Your task to perform on an android device: check the backup settings in the google photos Image 0: 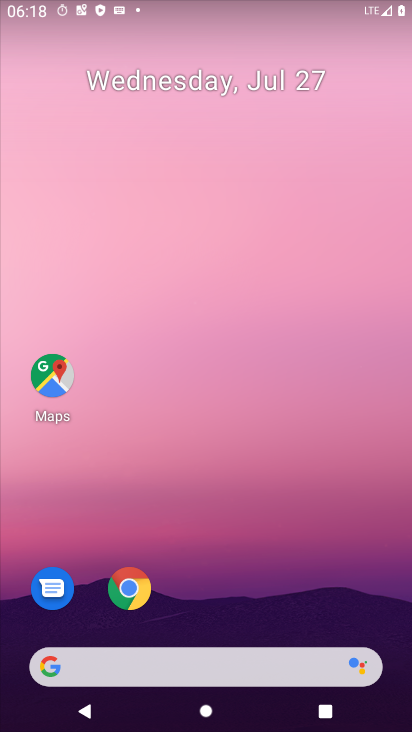
Step 0: drag from (156, 658) to (243, 56)
Your task to perform on an android device: check the backup settings in the google photos Image 1: 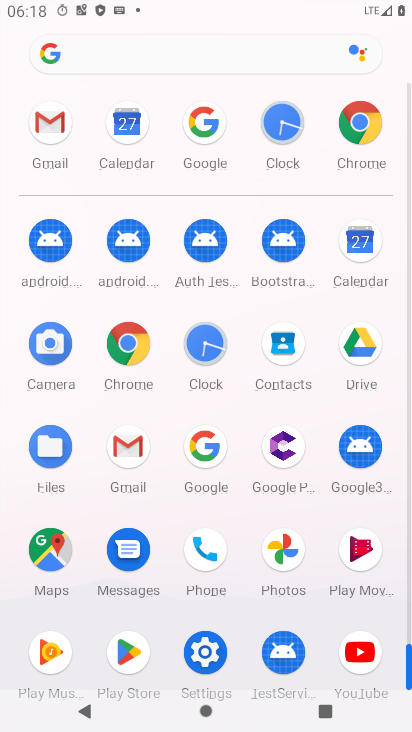
Step 1: click (294, 558)
Your task to perform on an android device: check the backup settings in the google photos Image 2: 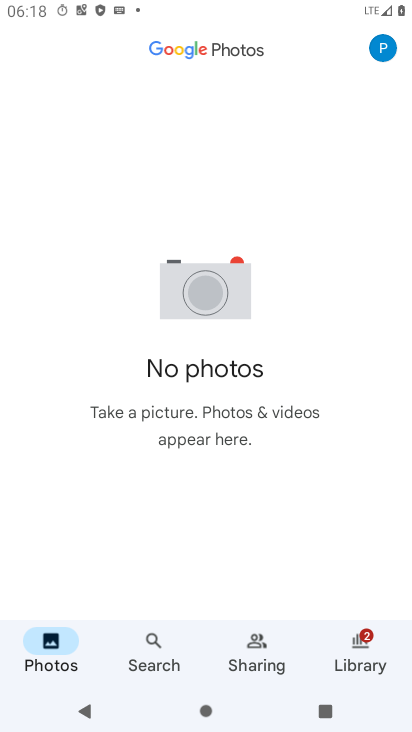
Step 2: click (387, 43)
Your task to perform on an android device: check the backup settings in the google photos Image 3: 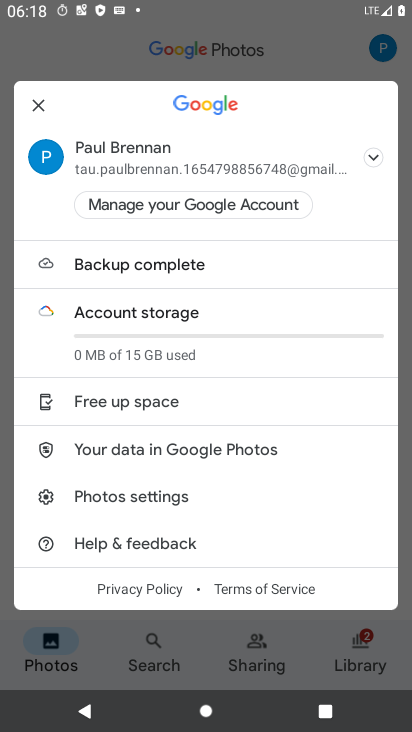
Step 3: click (142, 492)
Your task to perform on an android device: check the backup settings in the google photos Image 4: 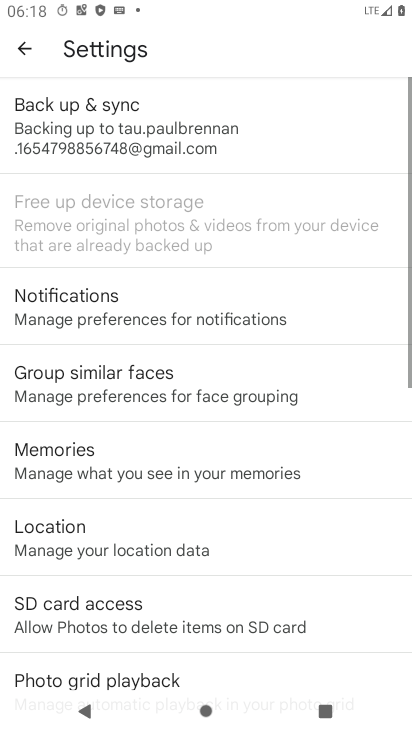
Step 4: click (203, 147)
Your task to perform on an android device: check the backup settings in the google photos Image 5: 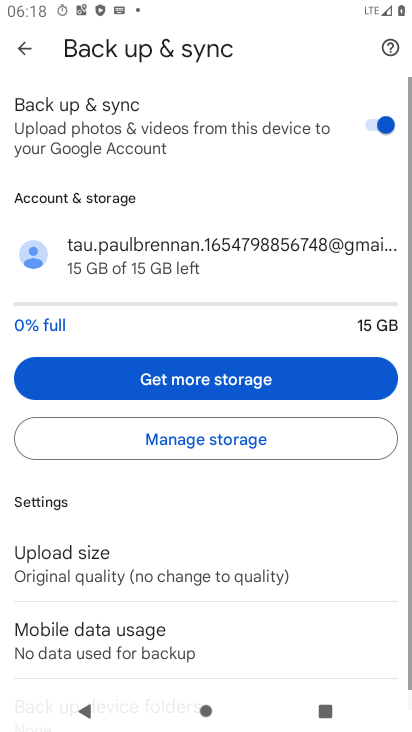
Step 5: task complete